Your task to perform on an android device: Open the map Image 0: 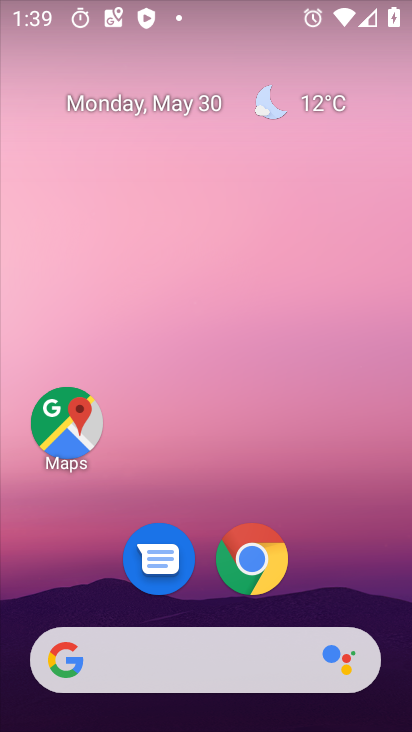
Step 0: click (86, 434)
Your task to perform on an android device: Open the map Image 1: 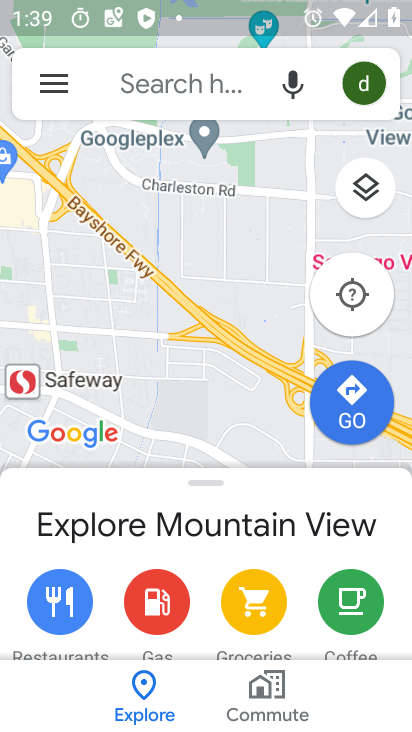
Step 1: task complete